Your task to perform on an android device: delete the emails in spam in the gmail app Image 0: 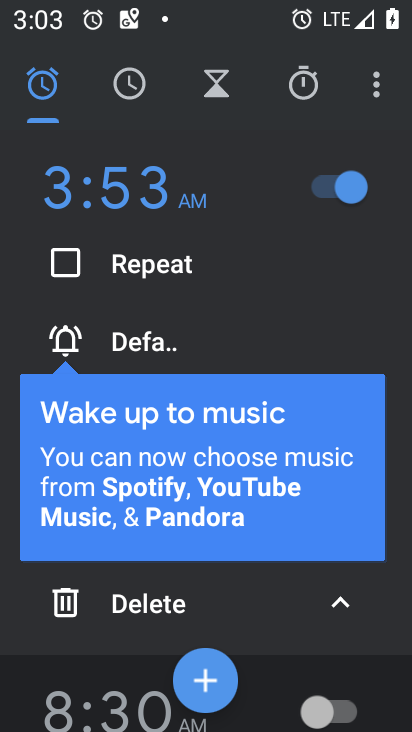
Step 0: press back button
Your task to perform on an android device: delete the emails in spam in the gmail app Image 1: 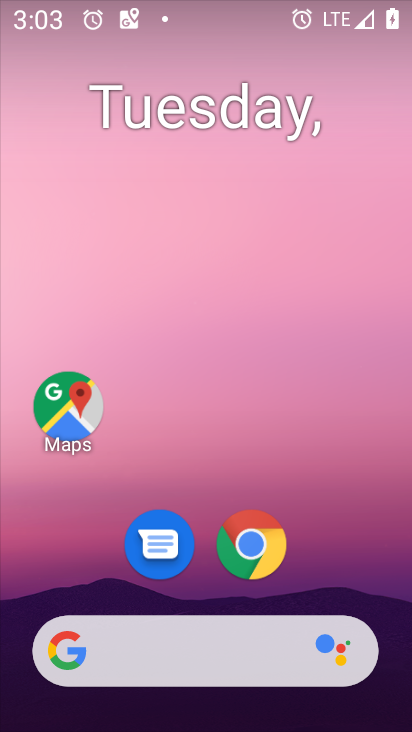
Step 1: drag from (332, 561) to (207, 23)
Your task to perform on an android device: delete the emails in spam in the gmail app Image 2: 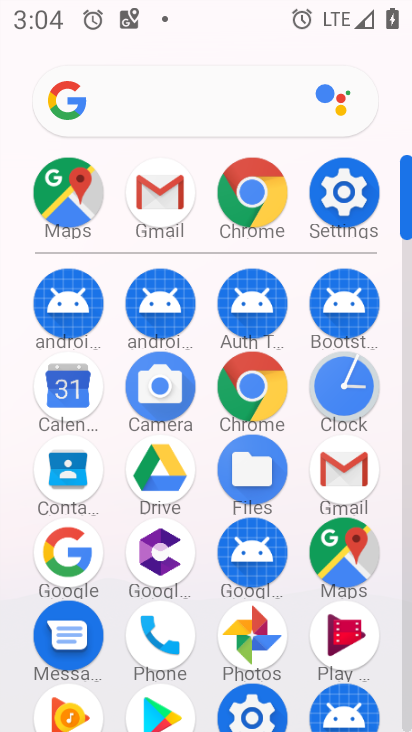
Step 2: drag from (12, 532) to (5, 277)
Your task to perform on an android device: delete the emails in spam in the gmail app Image 3: 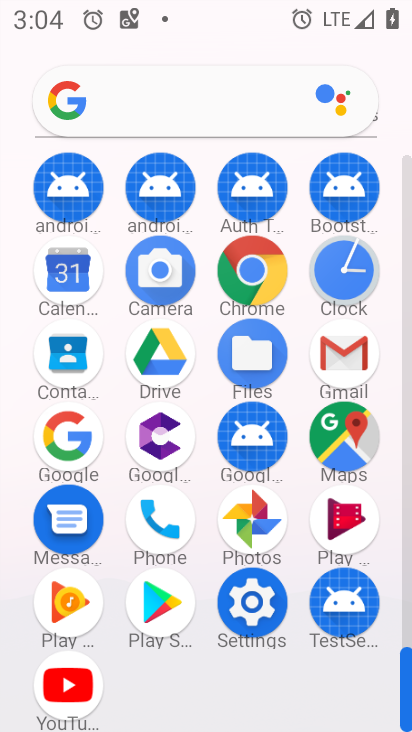
Step 3: click (348, 338)
Your task to perform on an android device: delete the emails in spam in the gmail app Image 4: 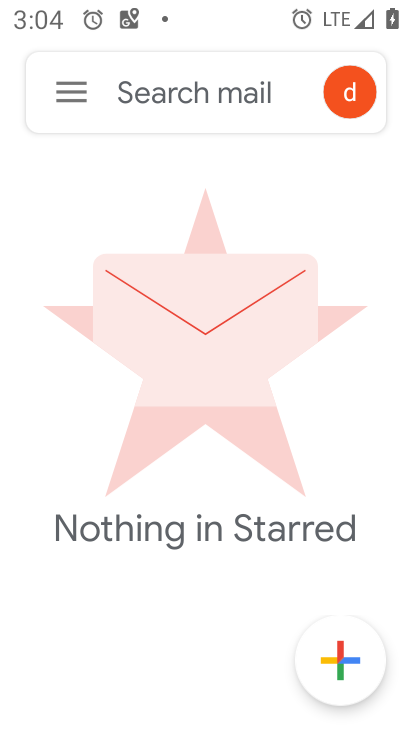
Step 4: click (55, 87)
Your task to perform on an android device: delete the emails in spam in the gmail app Image 5: 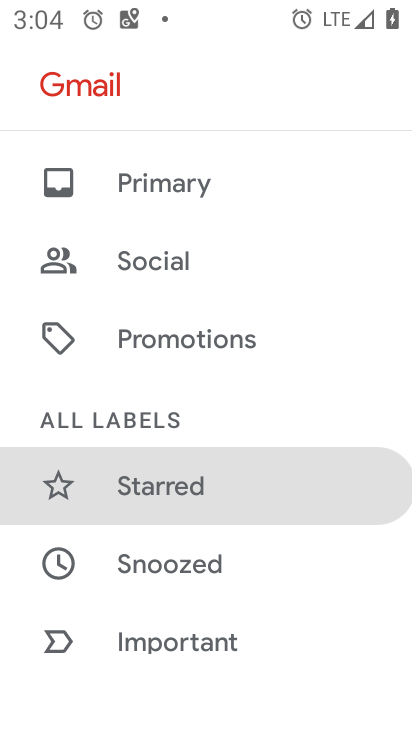
Step 5: drag from (250, 584) to (244, 156)
Your task to perform on an android device: delete the emails in spam in the gmail app Image 6: 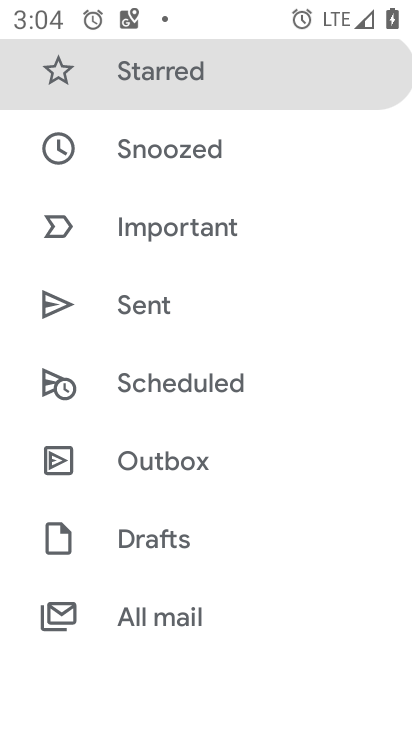
Step 6: drag from (250, 519) to (256, 167)
Your task to perform on an android device: delete the emails in spam in the gmail app Image 7: 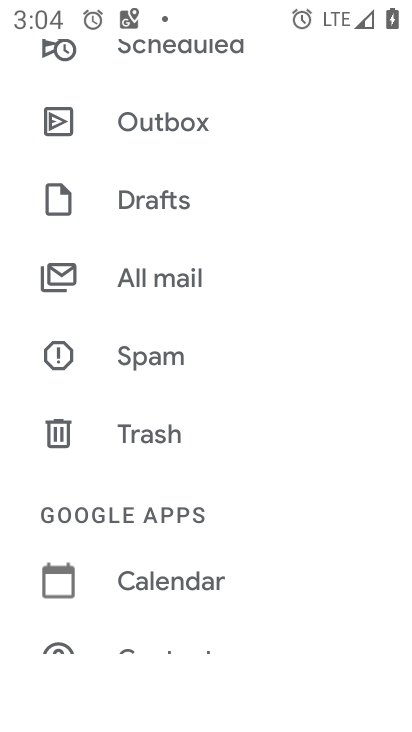
Step 7: click (182, 352)
Your task to perform on an android device: delete the emails in spam in the gmail app Image 8: 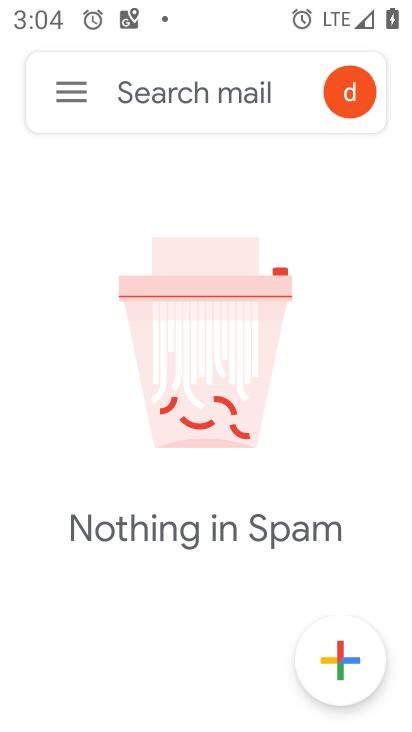
Step 8: click (64, 88)
Your task to perform on an android device: delete the emails in spam in the gmail app Image 9: 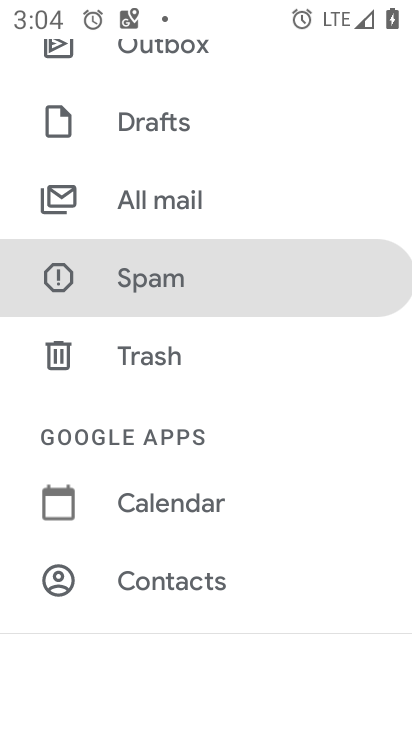
Step 9: click (159, 262)
Your task to perform on an android device: delete the emails in spam in the gmail app Image 10: 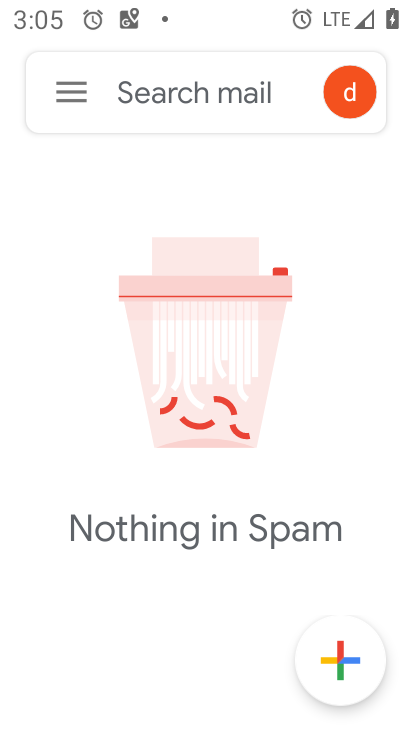
Step 10: task complete